Your task to perform on an android device: Empty the shopping cart on target.com. Search for duracell triple a on target.com, select the first entry, and add it to the cart. Image 0: 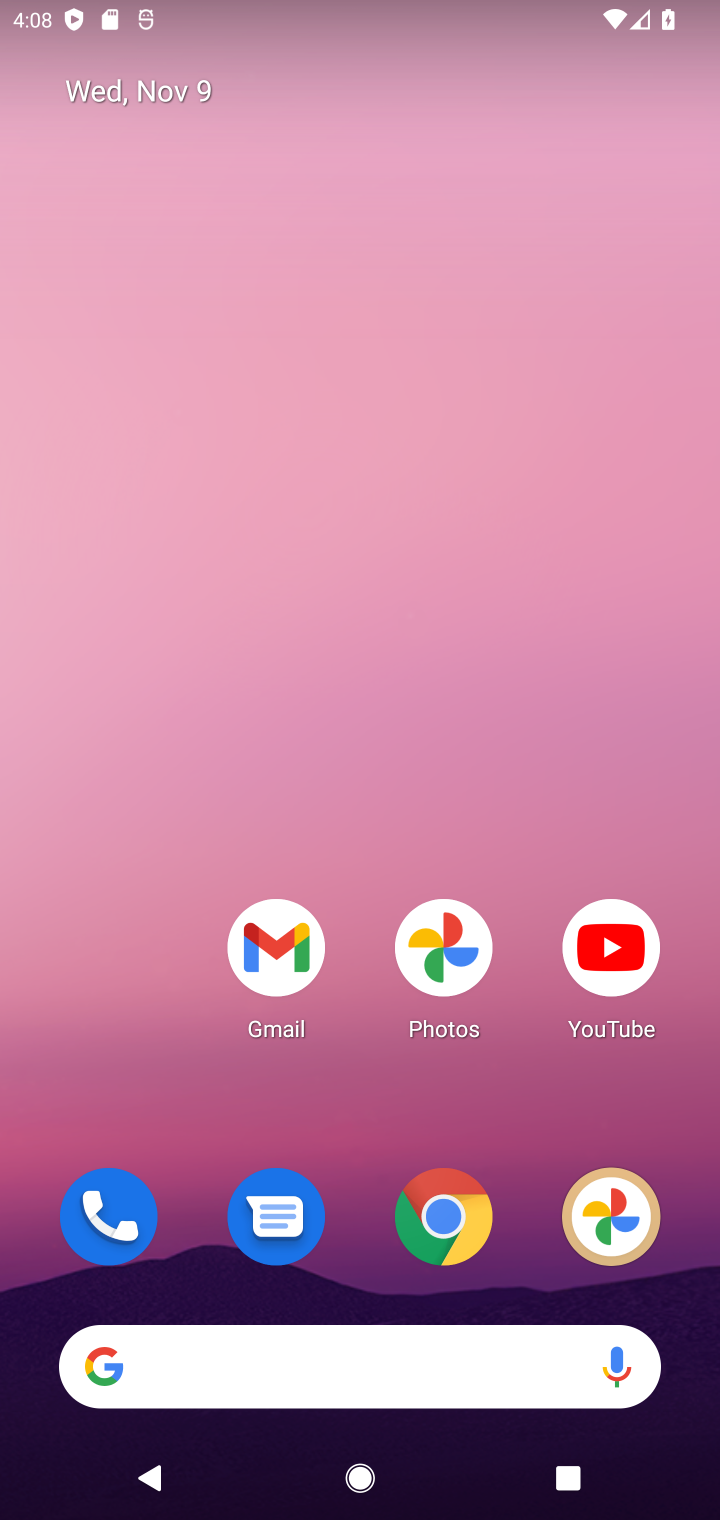
Step 0: drag from (366, 1137) to (580, 341)
Your task to perform on an android device: Empty the shopping cart on target.com. Search for duracell triple a on target.com, select the first entry, and add it to the cart. Image 1: 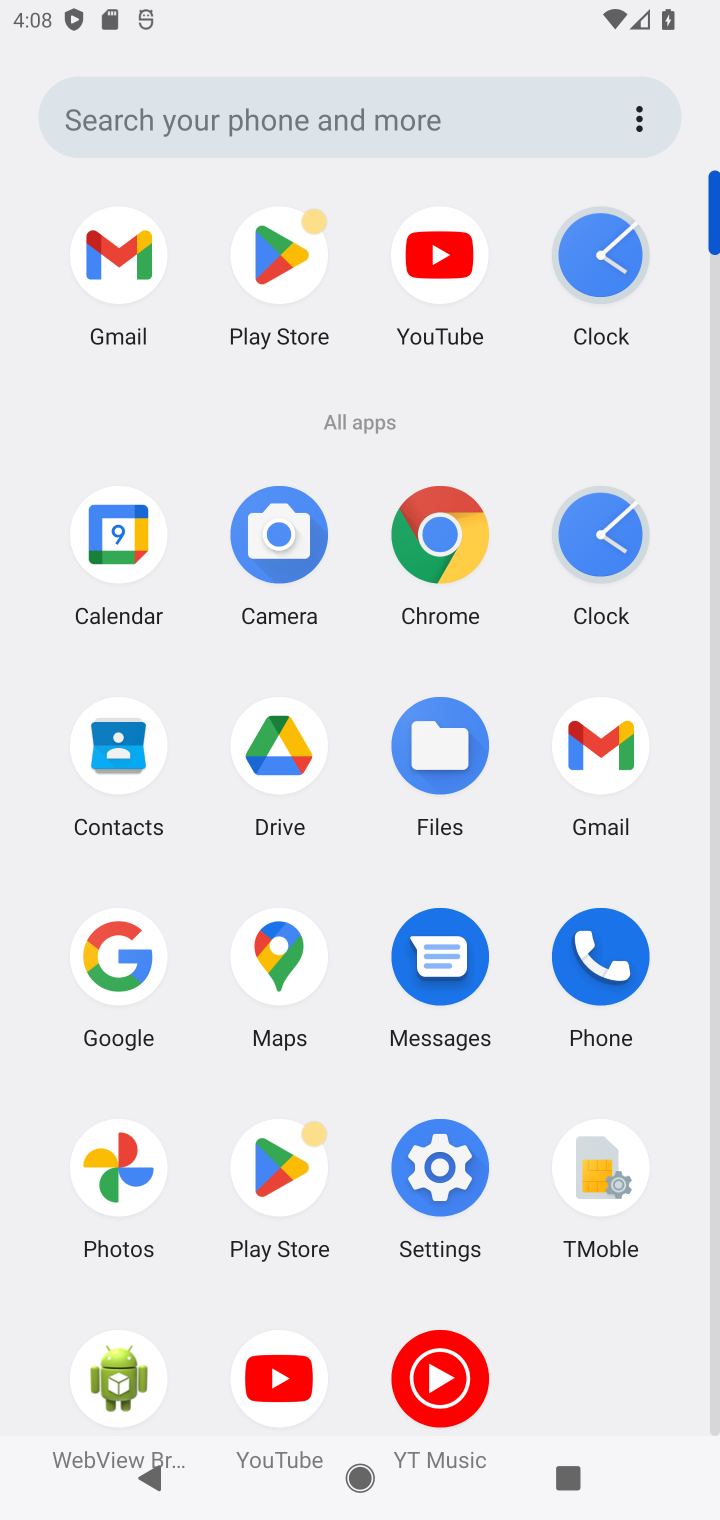
Step 1: click (448, 534)
Your task to perform on an android device: Empty the shopping cart on target.com. Search for duracell triple a on target.com, select the first entry, and add it to the cart. Image 2: 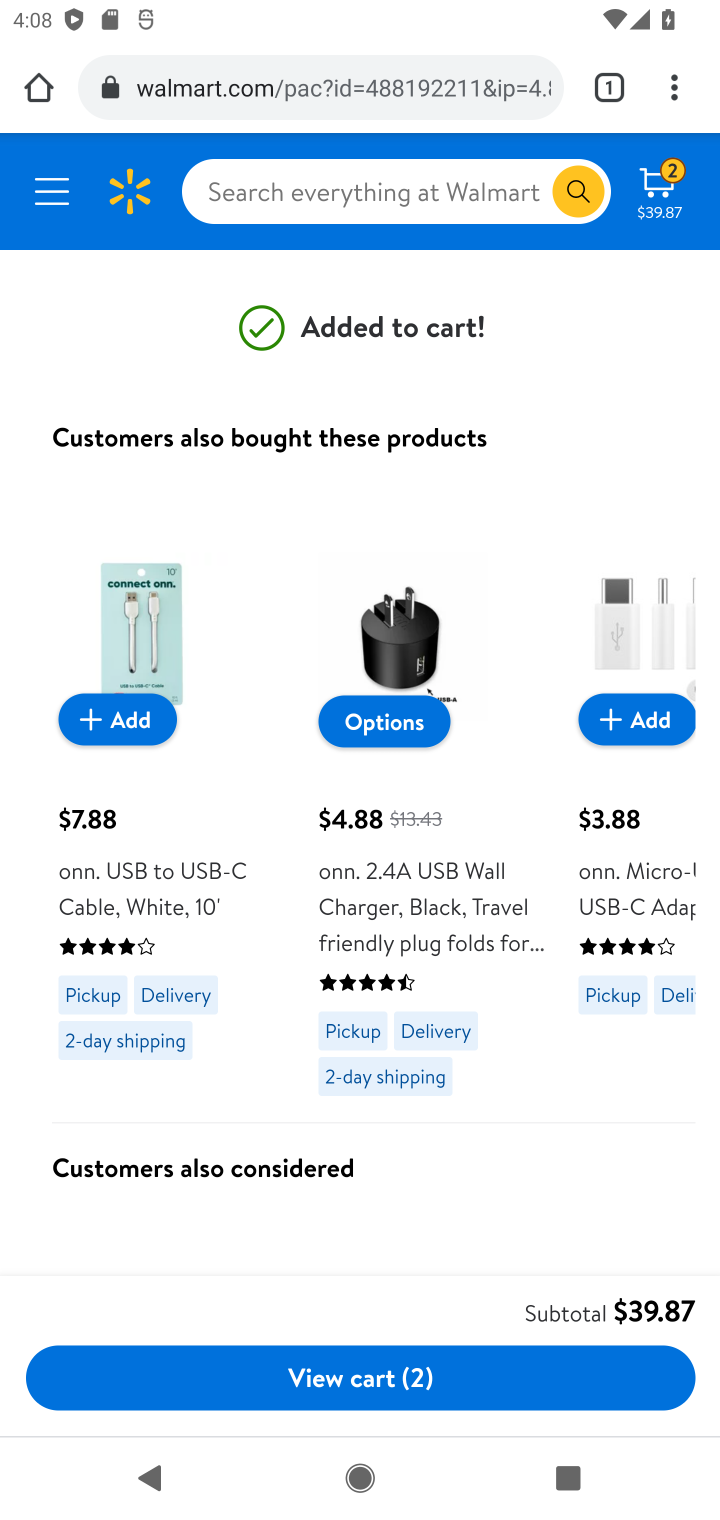
Step 2: click (456, 77)
Your task to perform on an android device: Empty the shopping cart on target.com. Search for duracell triple a on target.com, select the first entry, and add it to the cart. Image 3: 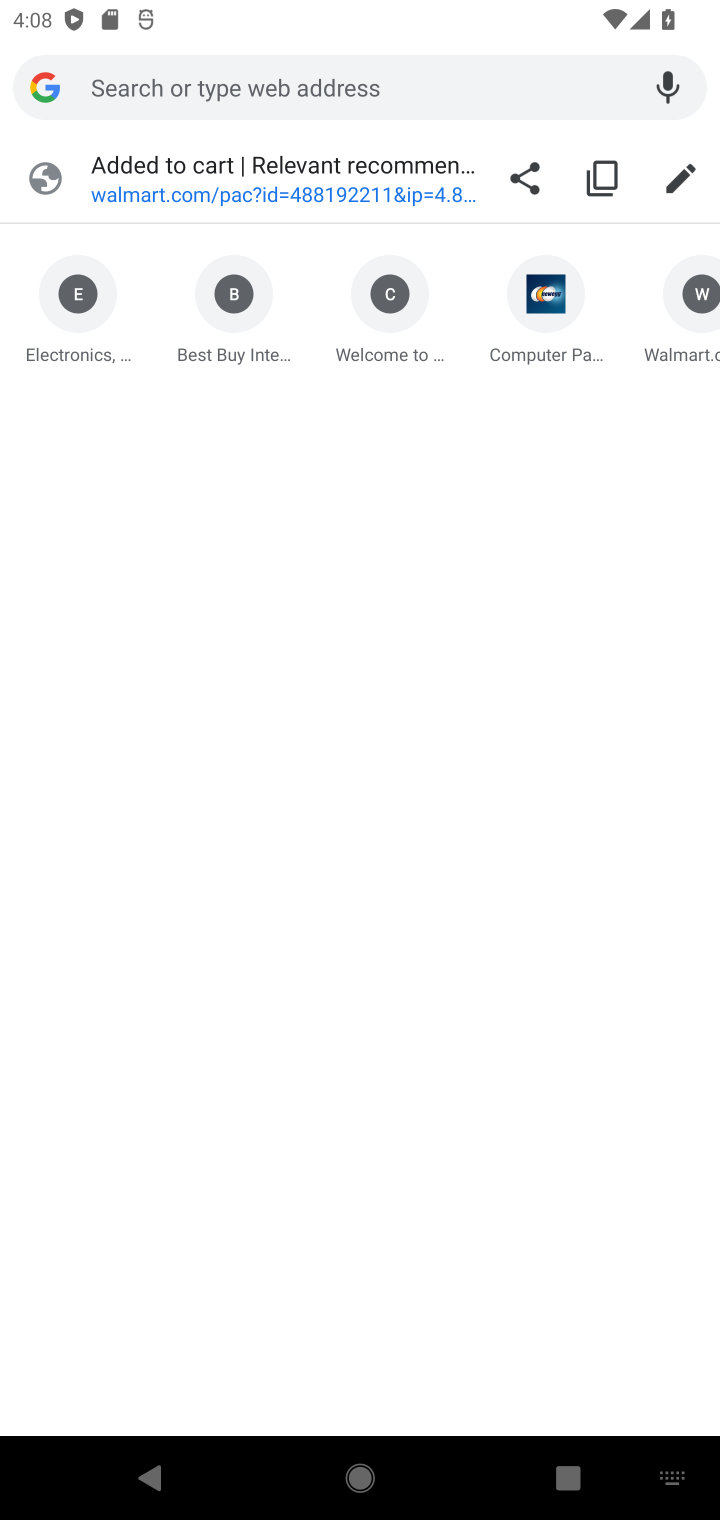
Step 3: type "target.com"
Your task to perform on an android device: Empty the shopping cart on target.com. Search for duracell triple a on target.com, select the first entry, and add it to the cart. Image 4: 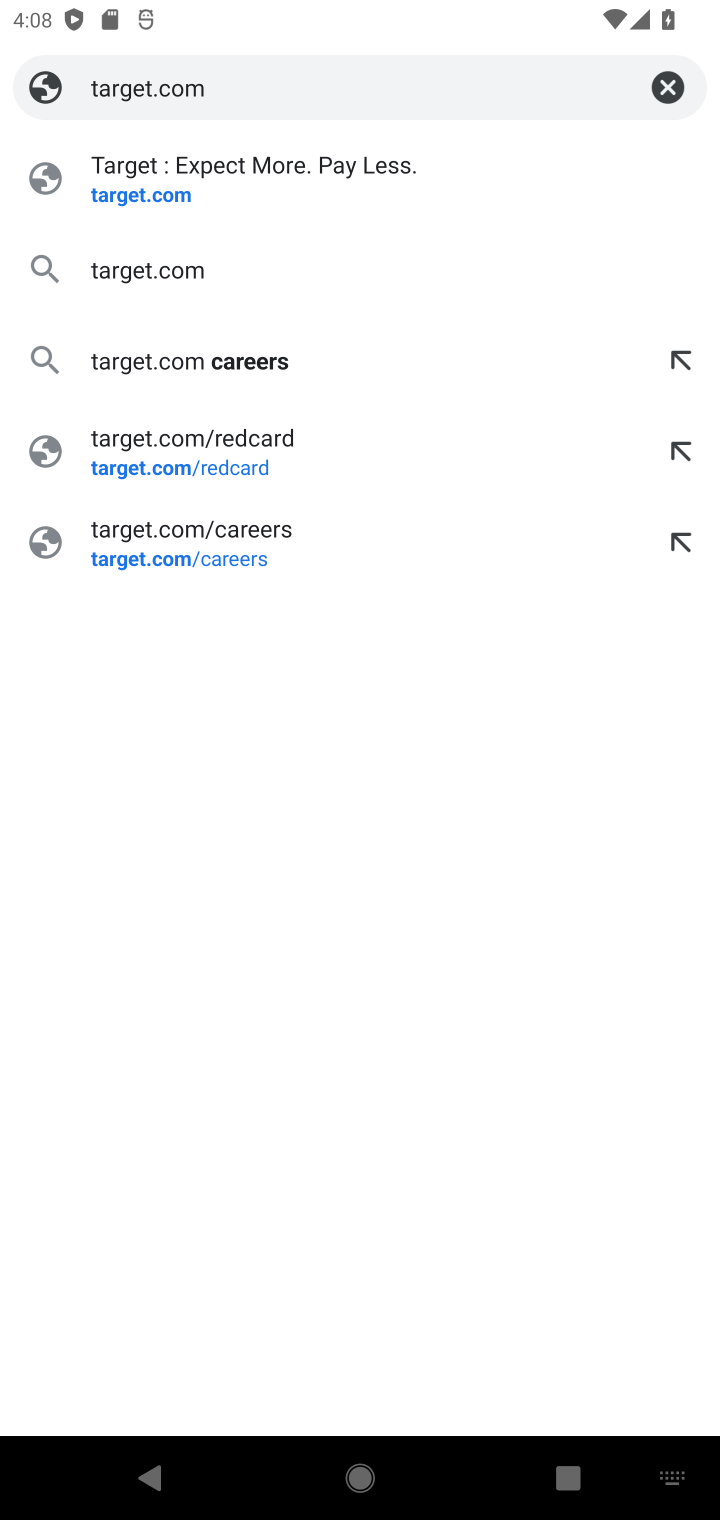
Step 4: press enter
Your task to perform on an android device: Empty the shopping cart on target.com. Search for duracell triple a on target.com, select the first entry, and add it to the cart. Image 5: 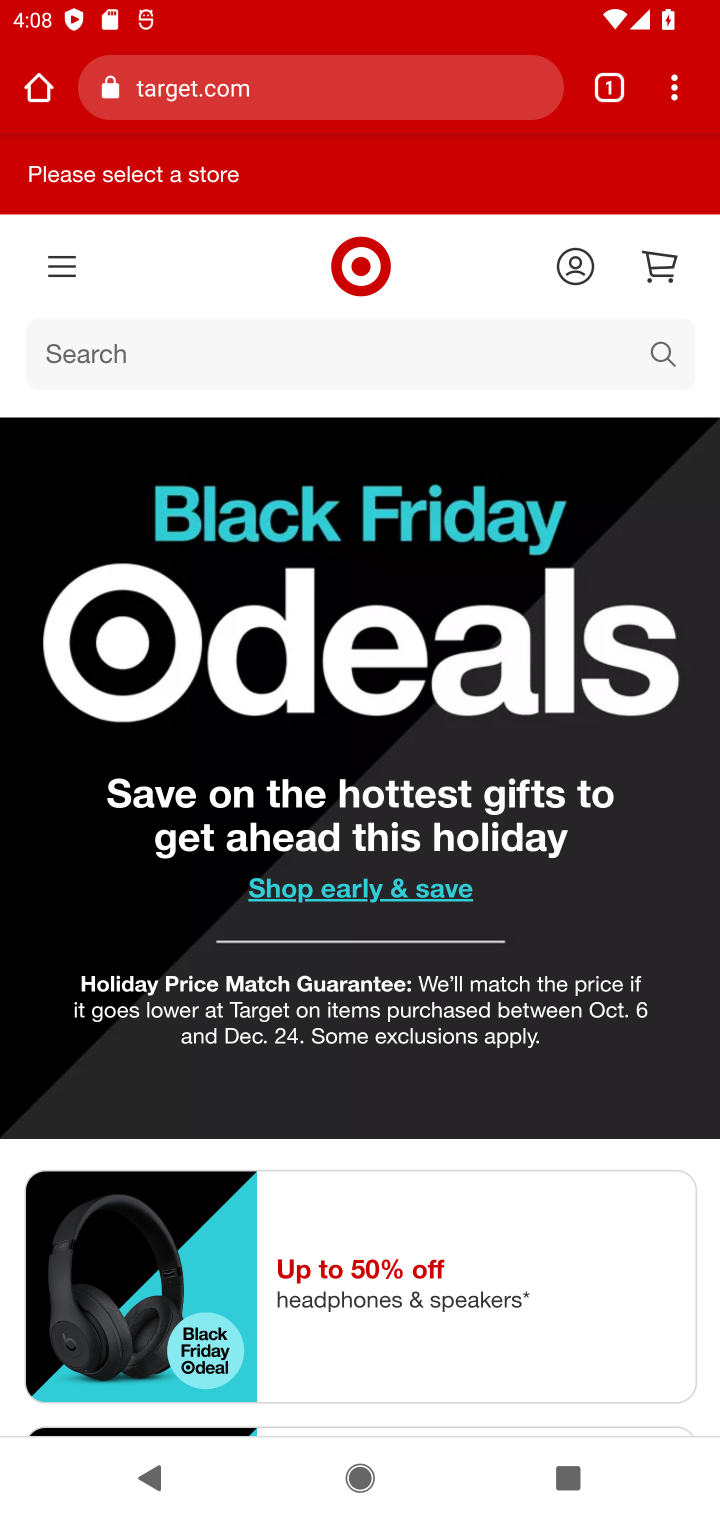
Step 5: click (664, 251)
Your task to perform on an android device: Empty the shopping cart on target.com. Search for duracell triple a on target.com, select the first entry, and add it to the cart. Image 6: 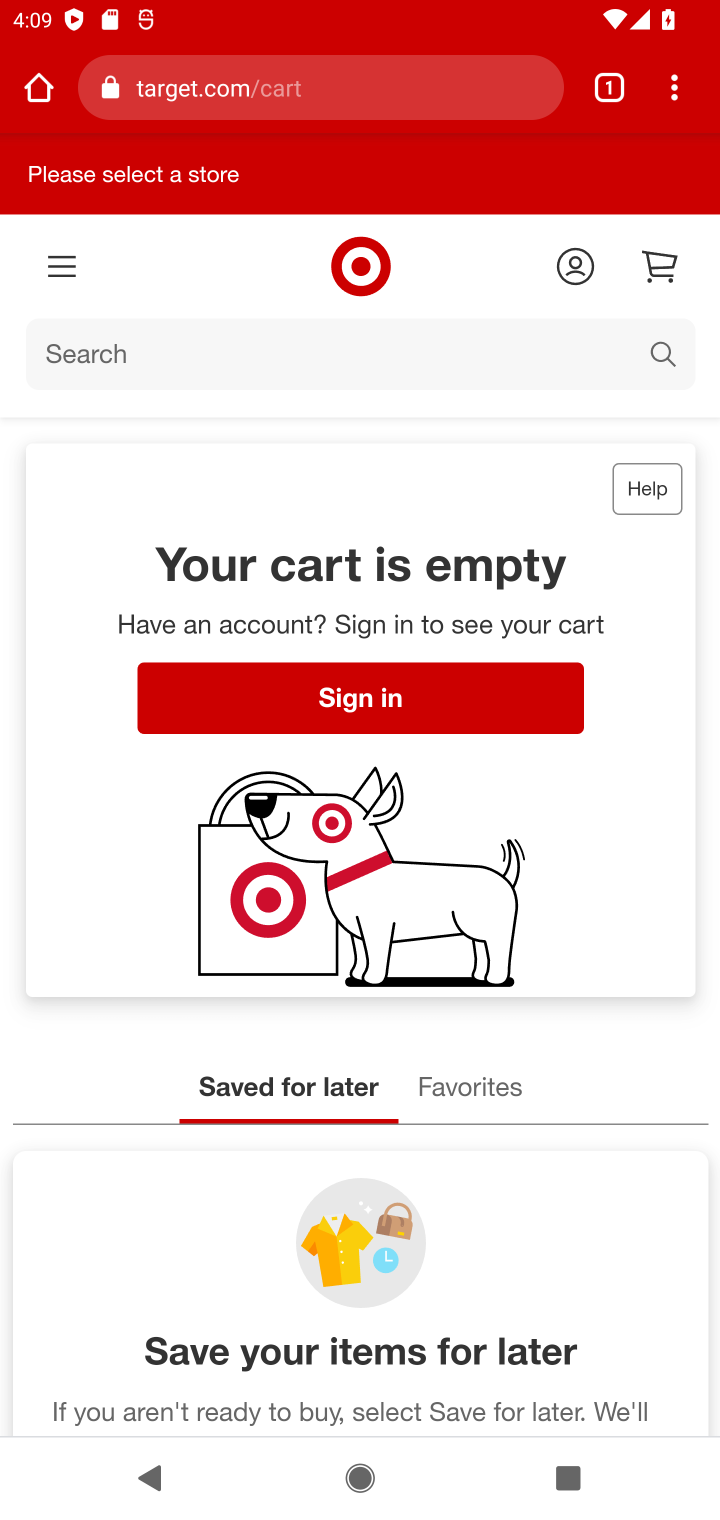
Step 6: click (482, 358)
Your task to perform on an android device: Empty the shopping cart on target.com. Search for duracell triple a on target.com, select the first entry, and add it to the cart. Image 7: 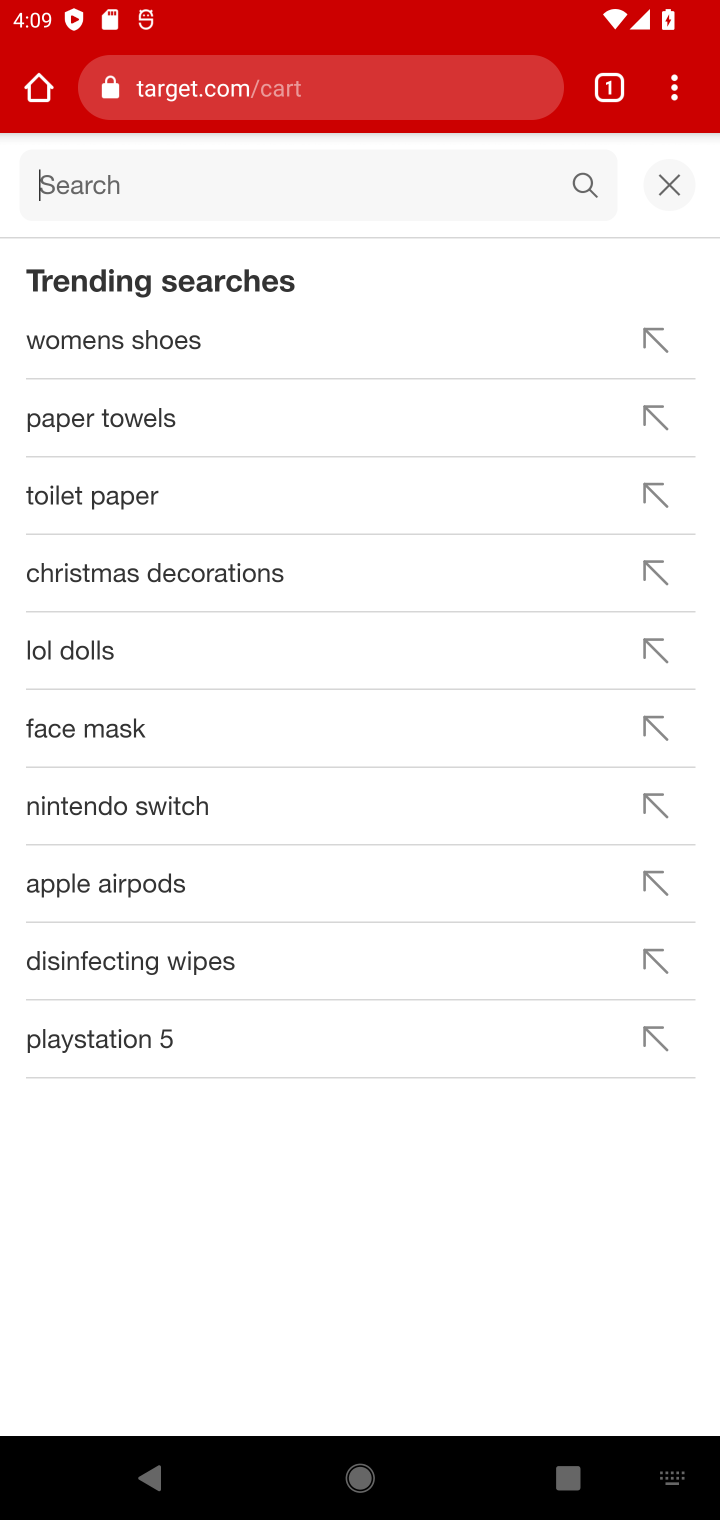
Step 7: type "duracell triple a"
Your task to perform on an android device: Empty the shopping cart on target.com. Search for duracell triple a on target.com, select the first entry, and add it to the cart. Image 8: 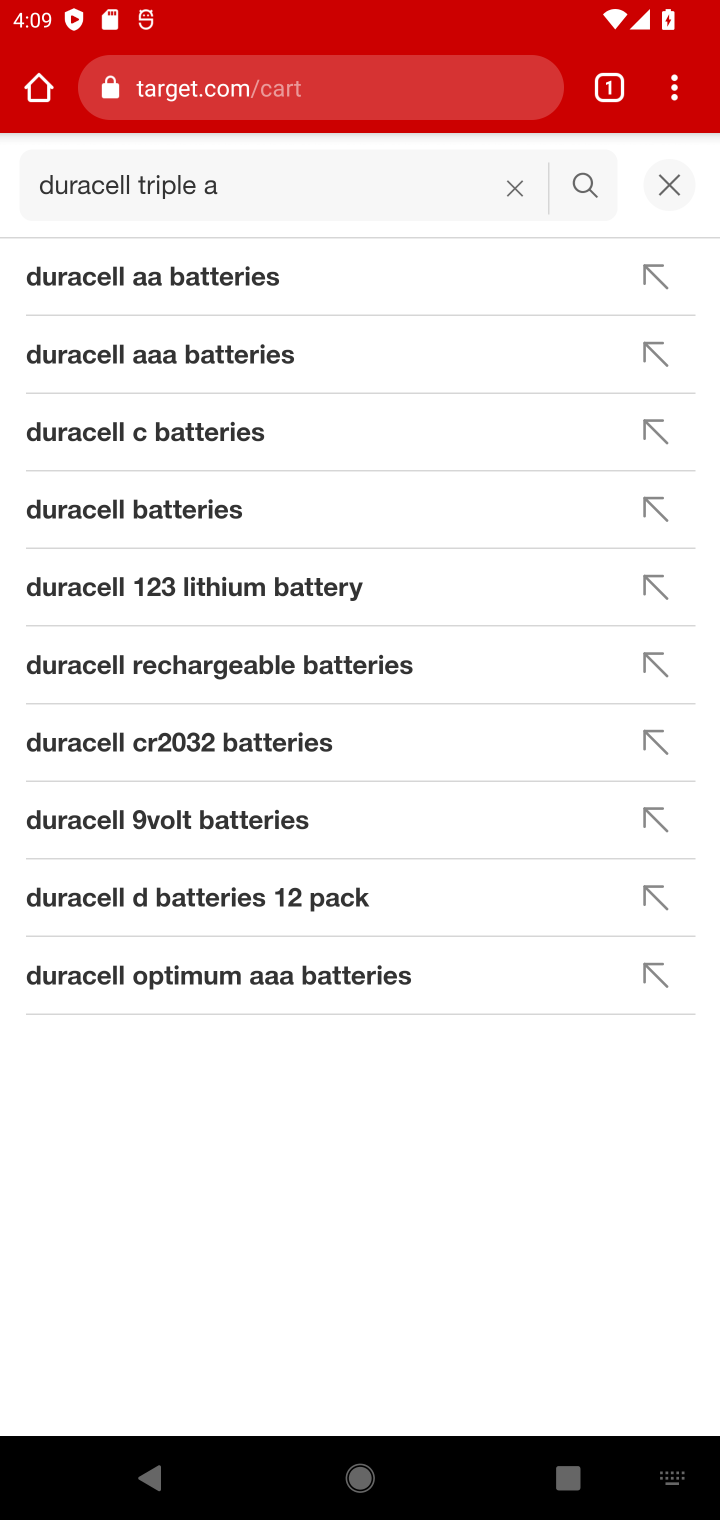
Step 8: press enter
Your task to perform on an android device: Empty the shopping cart on target.com. Search for duracell triple a on target.com, select the first entry, and add it to the cart. Image 9: 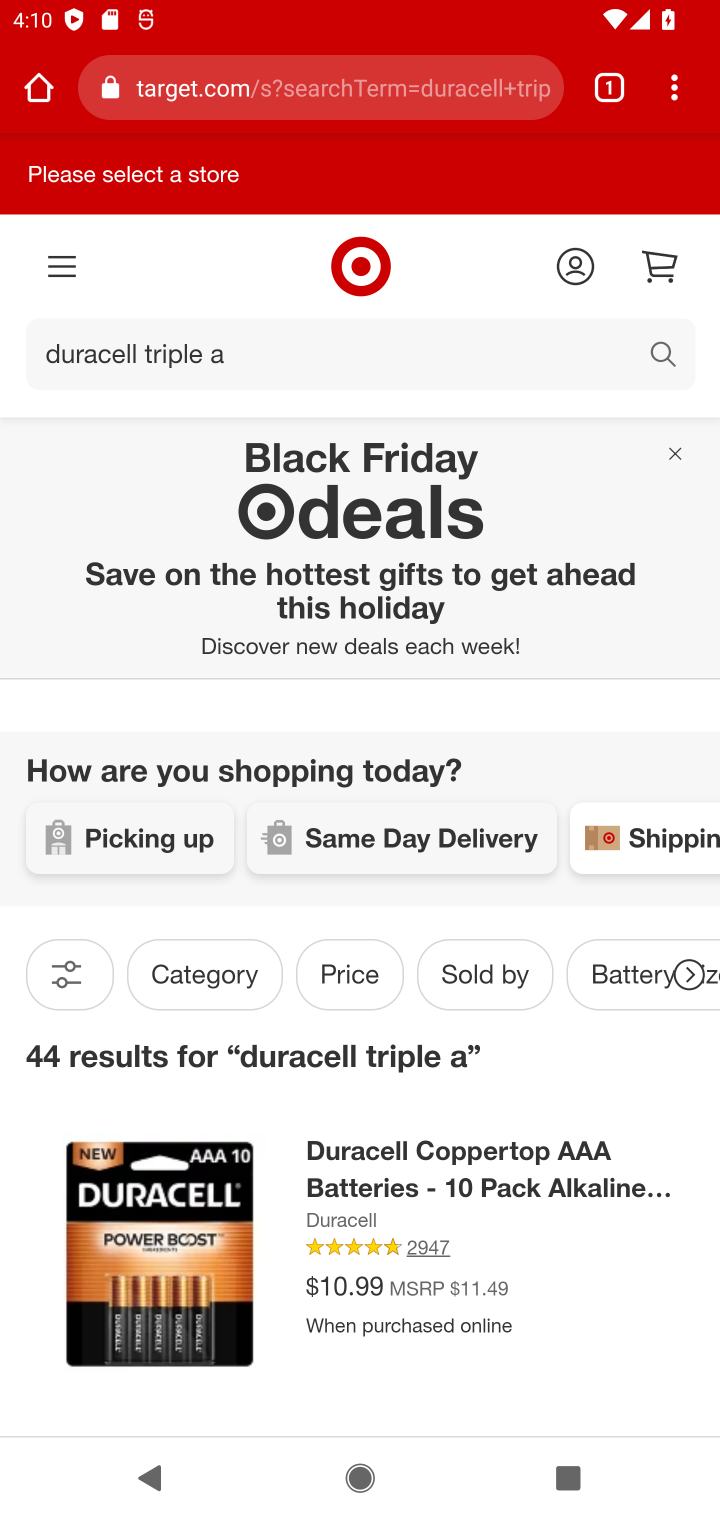
Step 9: drag from (475, 1276) to (492, 575)
Your task to perform on an android device: Empty the shopping cart on target.com. Search for duracell triple a on target.com, select the first entry, and add it to the cart. Image 10: 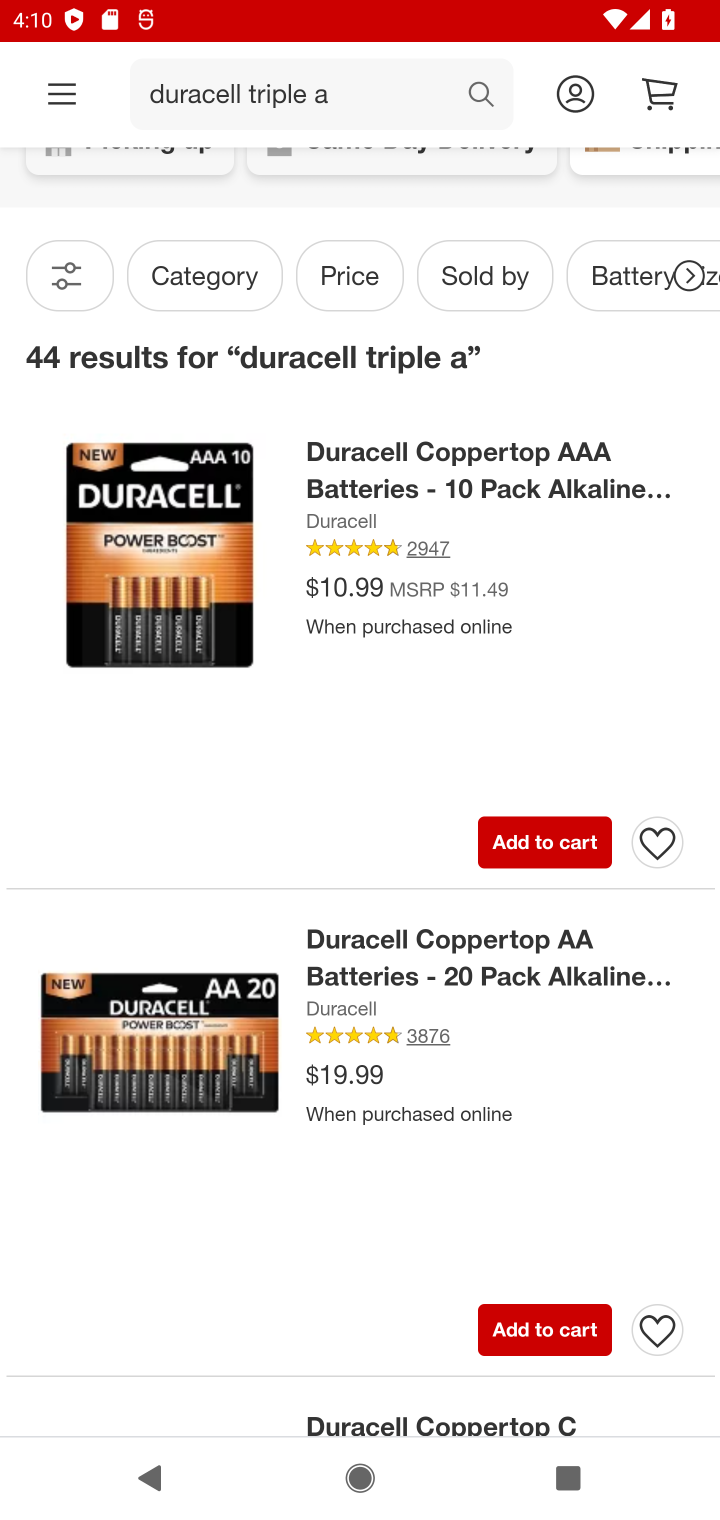
Step 10: click (544, 833)
Your task to perform on an android device: Empty the shopping cart on target.com. Search for duracell triple a on target.com, select the first entry, and add it to the cart. Image 11: 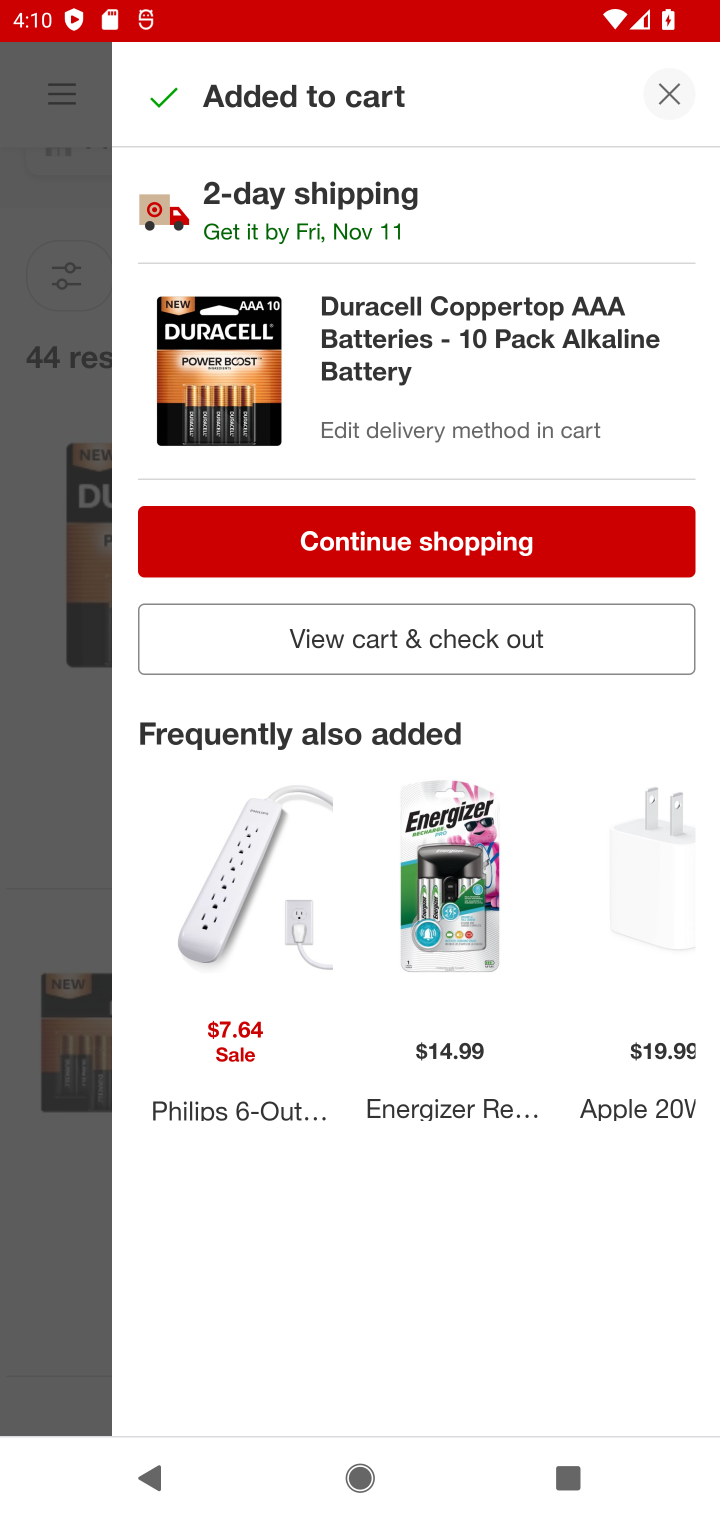
Step 11: task complete